Your task to perform on an android device: Go to accessibility settings Image 0: 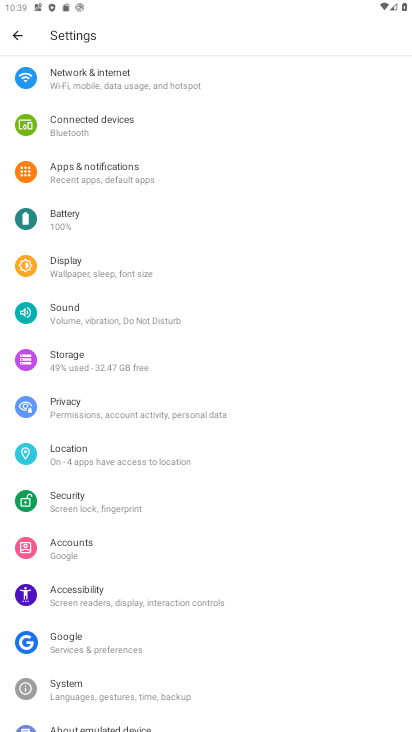
Step 0: click (65, 584)
Your task to perform on an android device: Go to accessibility settings Image 1: 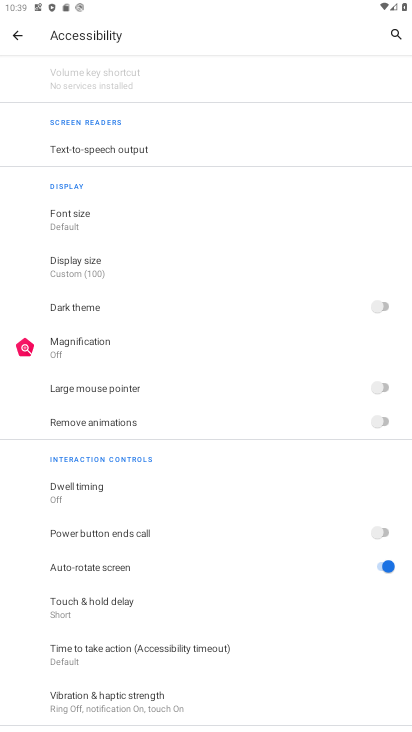
Step 1: task complete